Your task to perform on an android device: Show me popular games on the Play Store Image 0: 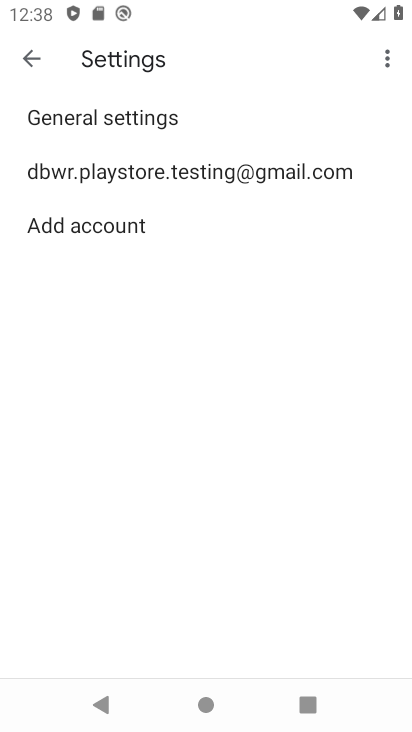
Step 0: press home button
Your task to perform on an android device: Show me popular games on the Play Store Image 1: 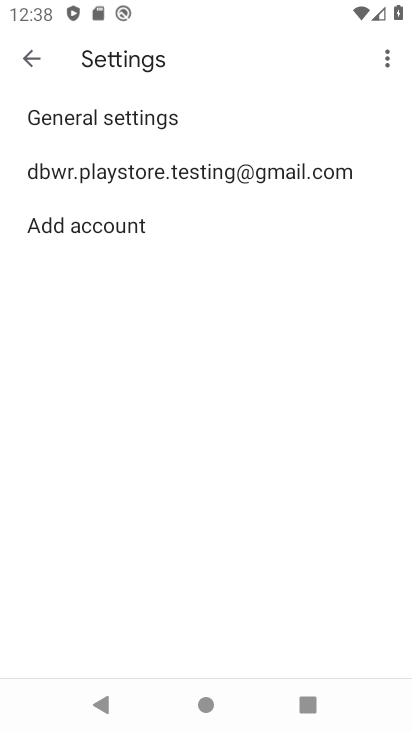
Step 1: press home button
Your task to perform on an android device: Show me popular games on the Play Store Image 2: 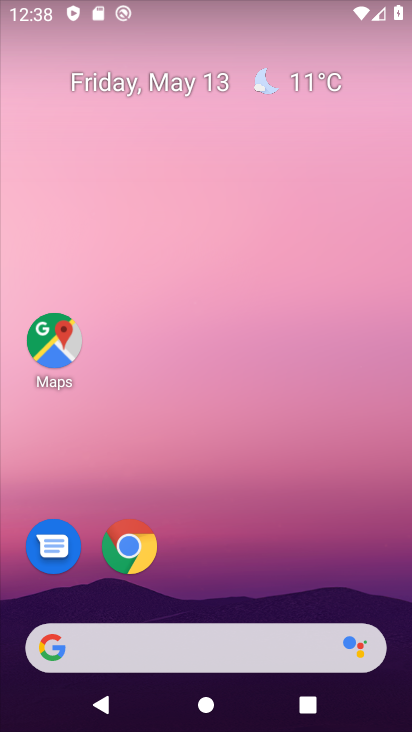
Step 2: drag from (227, 642) to (239, 331)
Your task to perform on an android device: Show me popular games on the Play Store Image 3: 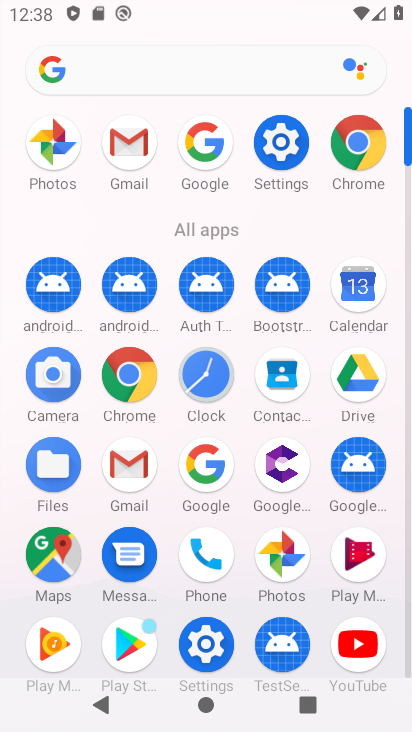
Step 3: drag from (209, 520) to (255, 346)
Your task to perform on an android device: Show me popular games on the Play Store Image 4: 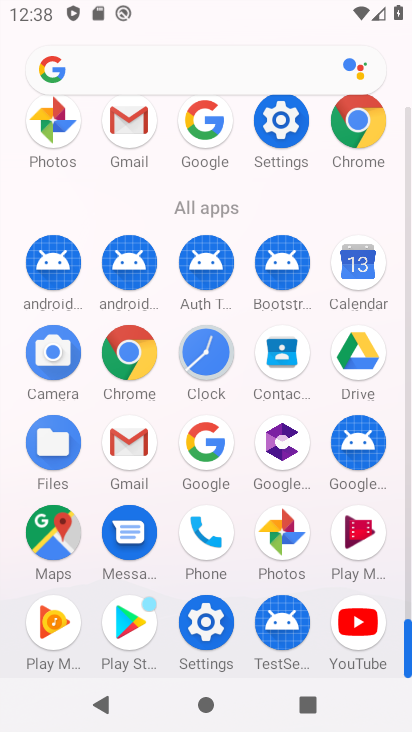
Step 4: click (129, 606)
Your task to perform on an android device: Show me popular games on the Play Store Image 5: 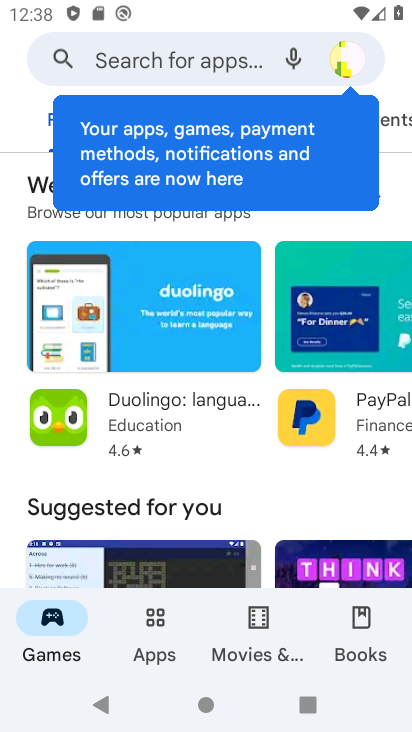
Step 5: click (63, 636)
Your task to perform on an android device: Show me popular games on the Play Store Image 6: 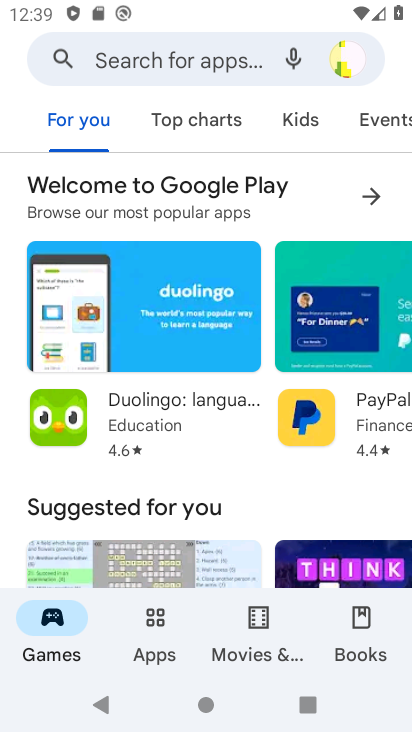
Step 6: task complete